Your task to perform on an android device: Add "logitech g502" to the cart on costco.com Image 0: 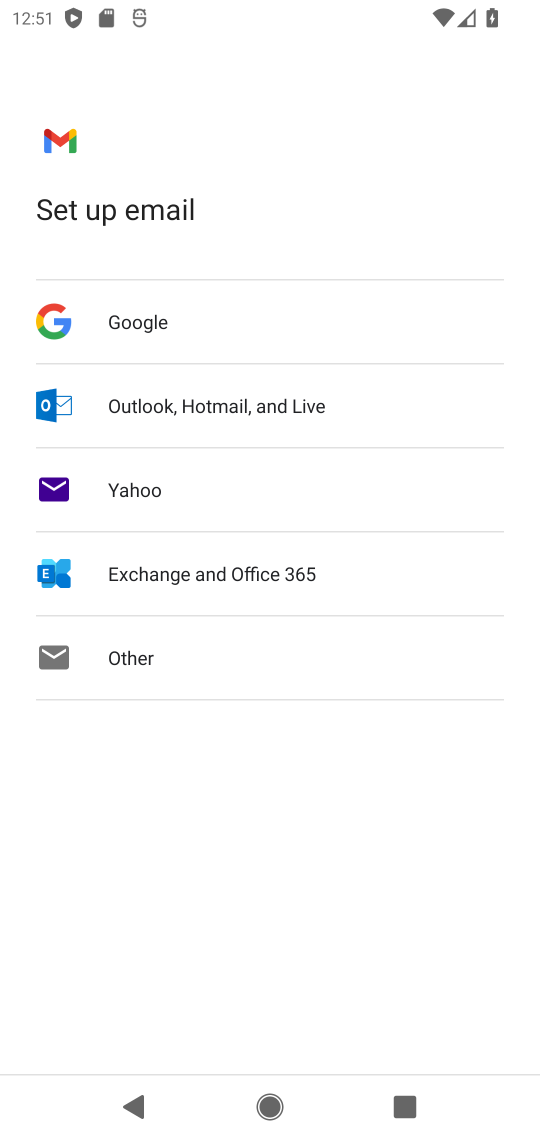
Step 0: press home button
Your task to perform on an android device: Add "logitech g502" to the cart on costco.com Image 1: 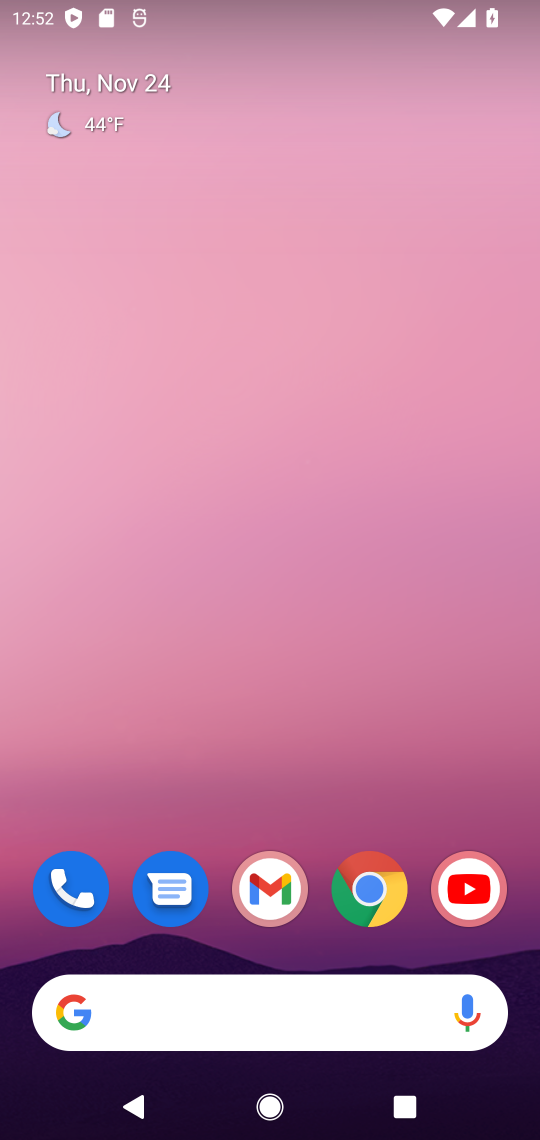
Step 1: click (367, 897)
Your task to perform on an android device: Add "logitech g502" to the cart on costco.com Image 2: 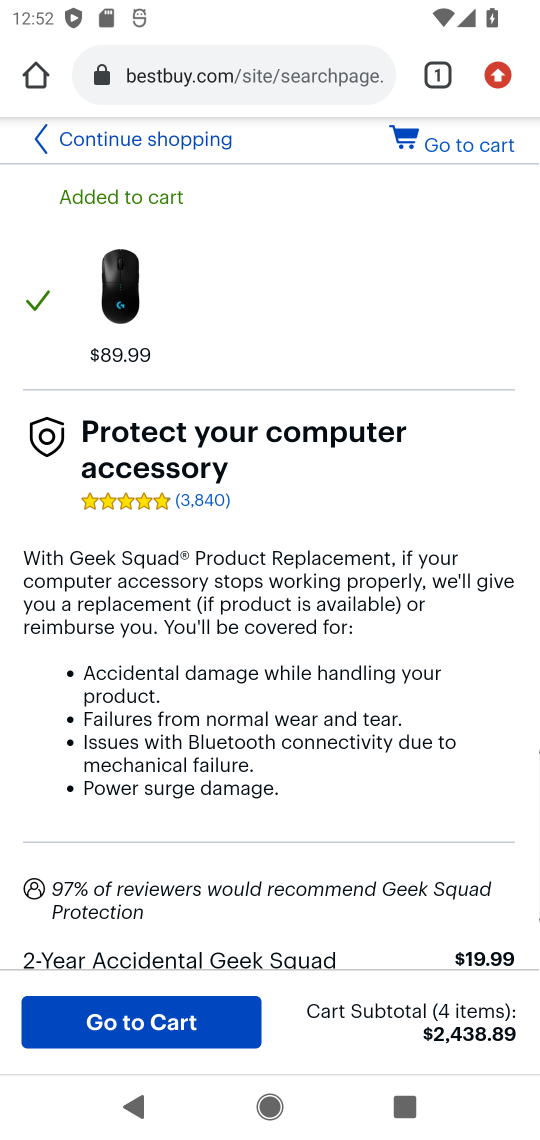
Step 2: click (180, 73)
Your task to perform on an android device: Add "logitech g502" to the cart on costco.com Image 3: 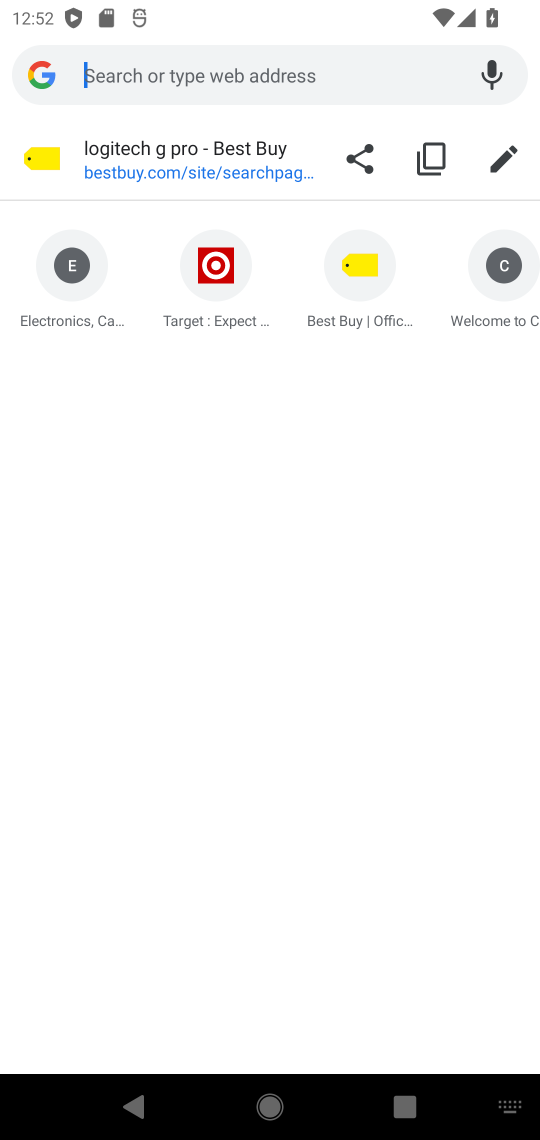
Step 3: type "costco.com"
Your task to perform on an android device: Add "logitech g502" to the cart on costco.com Image 4: 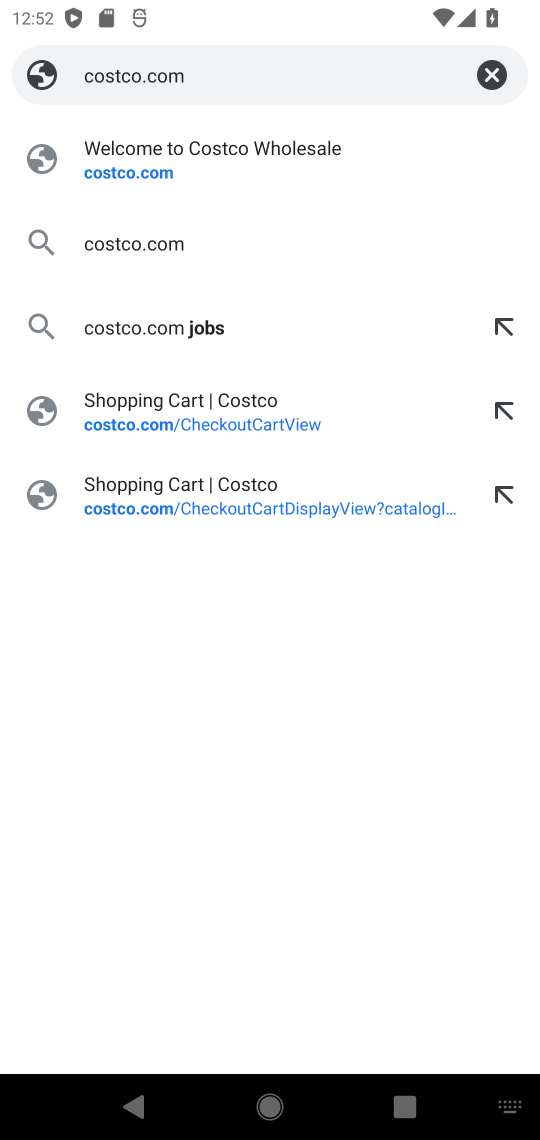
Step 4: click (139, 183)
Your task to perform on an android device: Add "logitech g502" to the cart on costco.com Image 5: 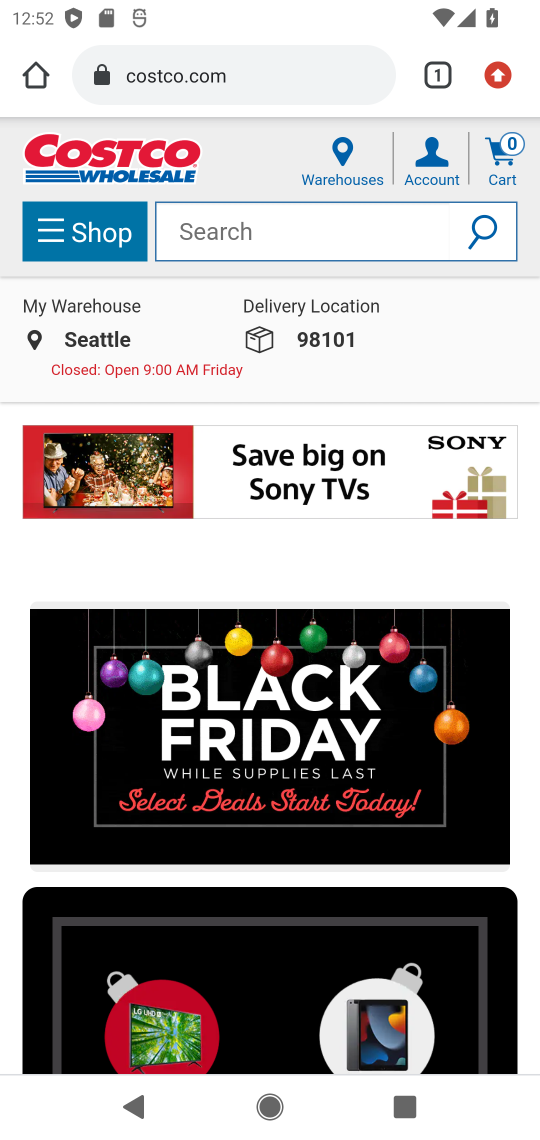
Step 5: click (202, 231)
Your task to perform on an android device: Add "logitech g502" to the cart on costco.com Image 6: 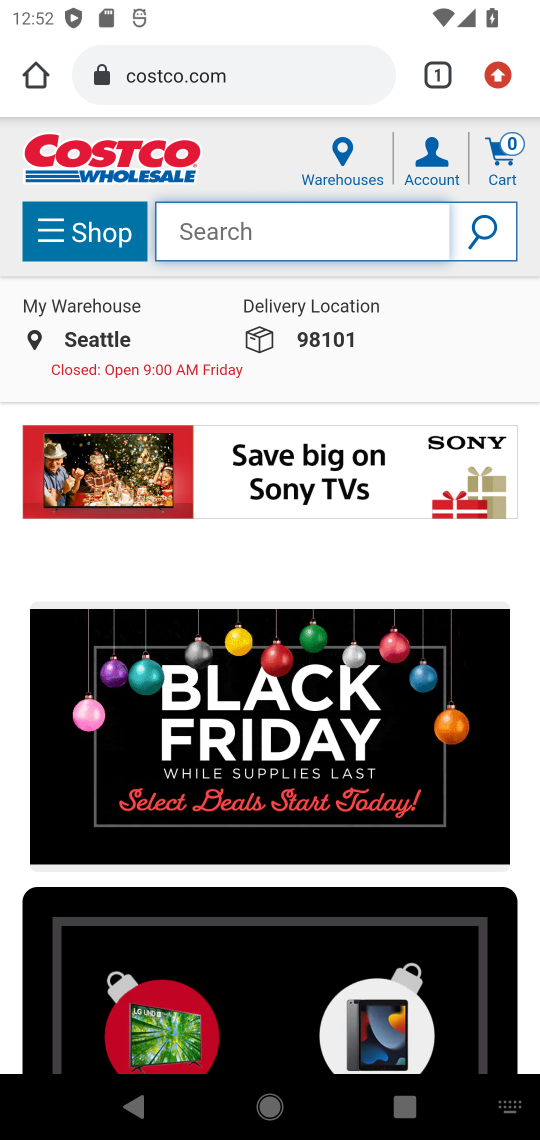
Step 6: type "logitech g502"
Your task to perform on an android device: Add "logitech g502" to the cart on costco.com Image 7: 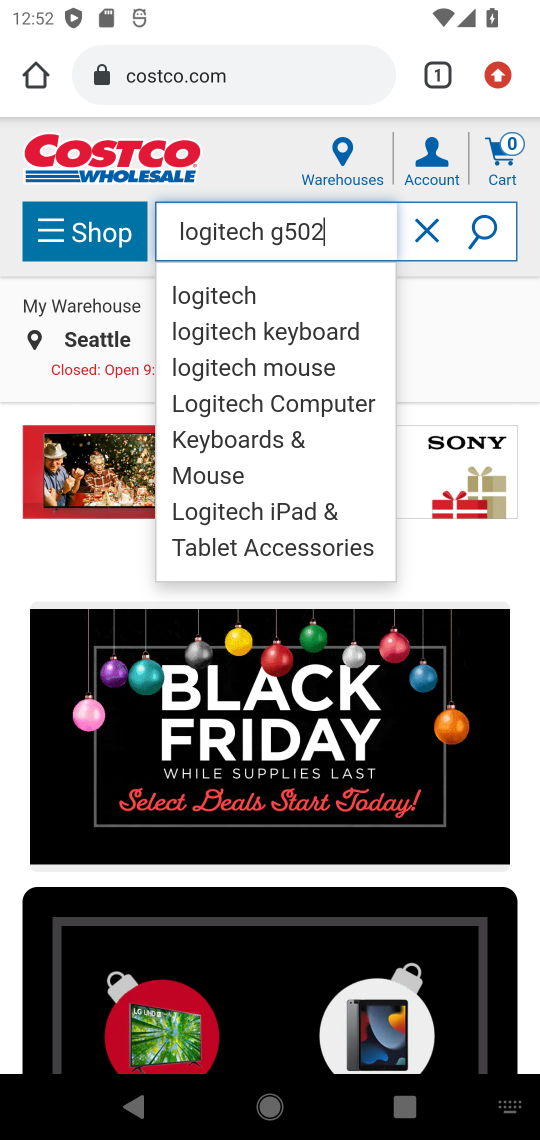
Step 7: click (483, 243)
Your task to perform on an android device: Add "logitech g502" to the cart on costco.com Image 8: 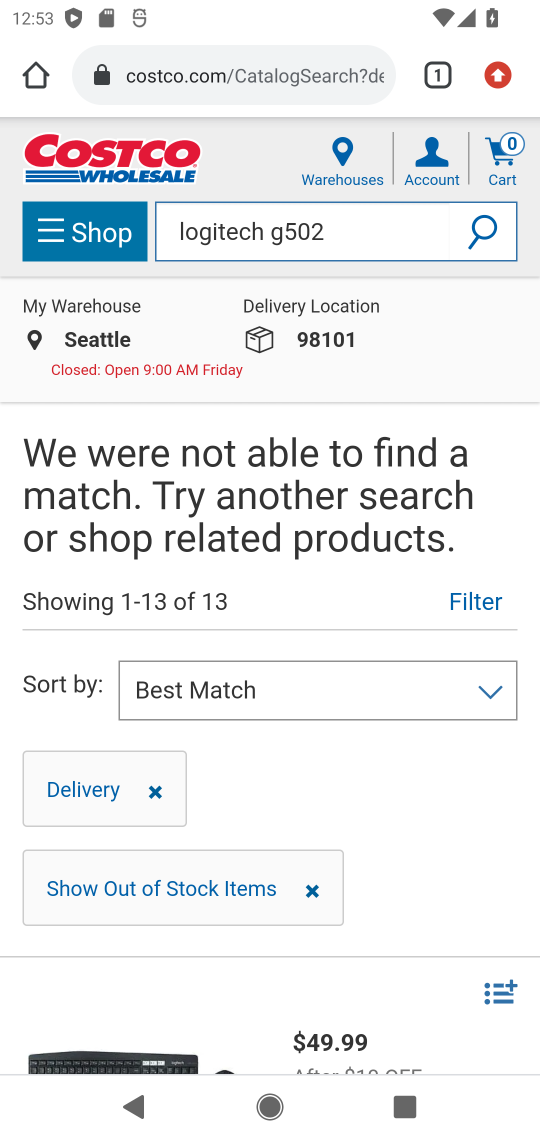
Step 8: task complete